Your task to perform on an android device: refresh tabs in the chrome app Image 0: 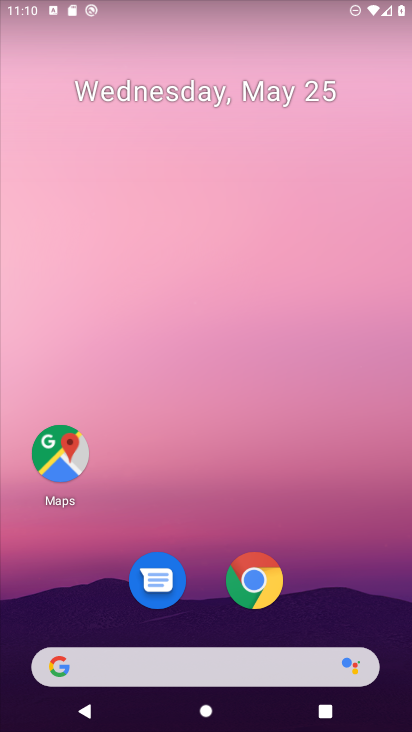
Step 0: press home button
Your task to perform on an android device: refresh tabs in the chrome app Image 1: 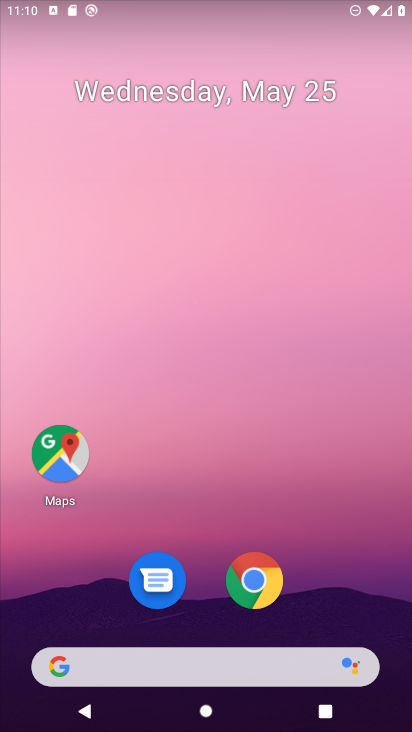
Step 1: click (246, 585)
Your task to perform on an android device: refresh tabs in the chrome app Image 2: 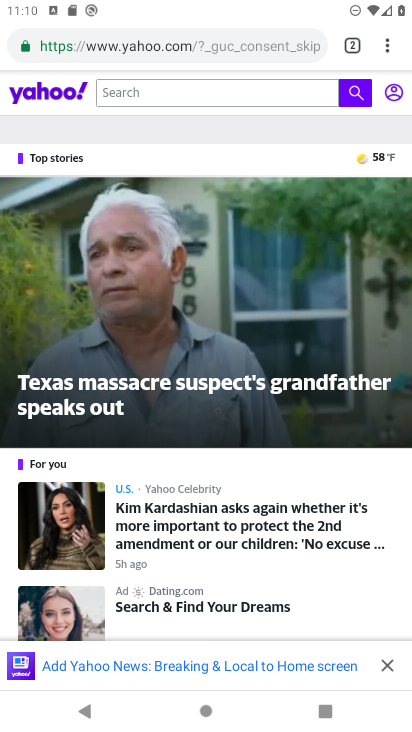
Step 2: click (378, 45)
Your task to perform on an android device: refresh tabs in the chrome app Image 3: 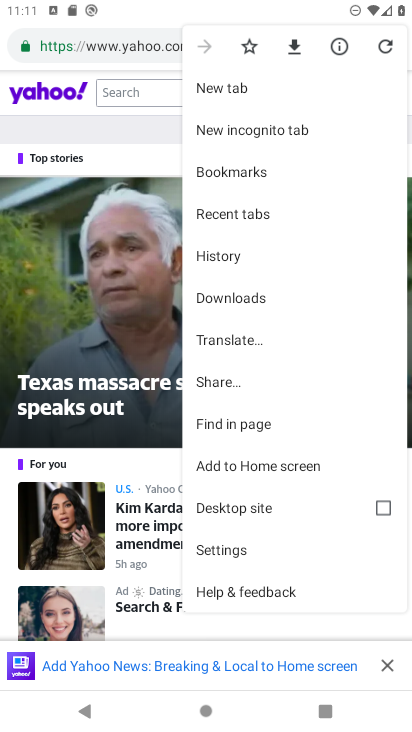
Step 3: click (386, 56)
Your task to perform on an android device: refresh tabs in the chrome app Image 4: 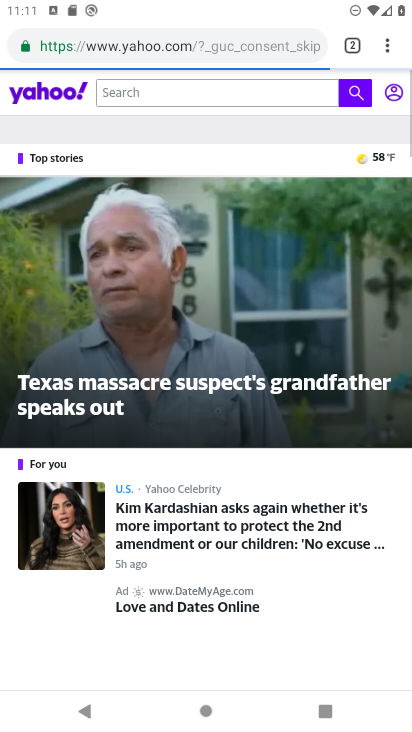
Step 4: task complete